Your task to perform on an android device: turn off wifi Image 0: 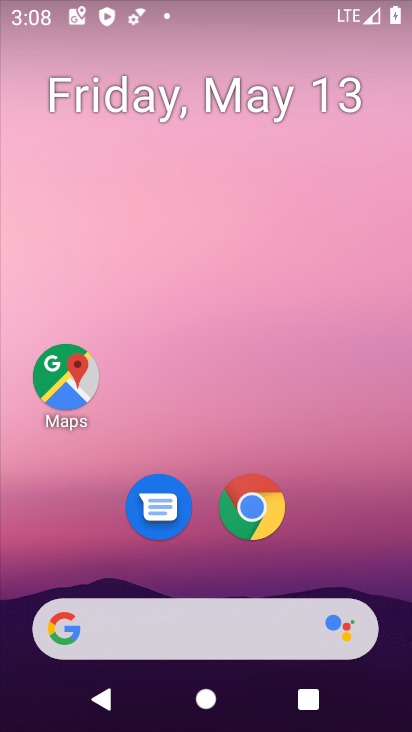
Step 0: drag from (369, 300) to (398, 6)
Your task to perform on an android device: turn off wifi Image 1: 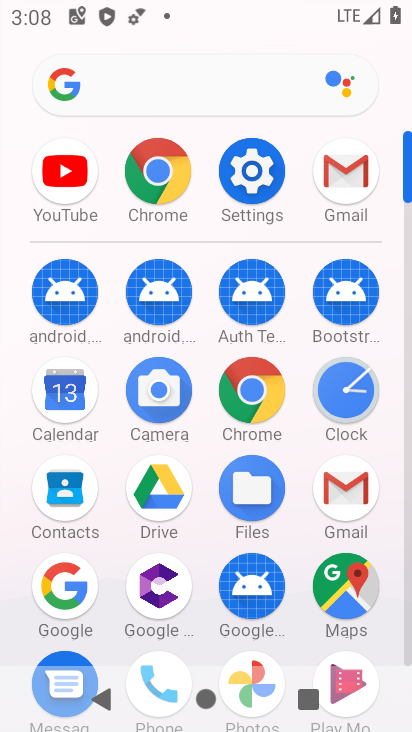
Step 1: click (255, 176)
Your task to perform on an android device: turn off wifi Image 2: 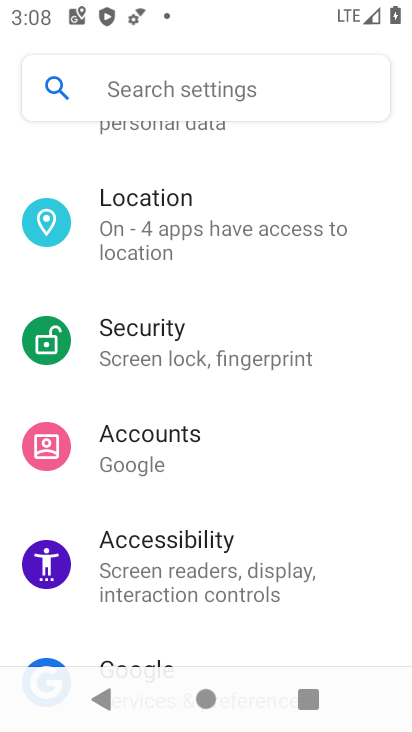
Step 2: drag from (216, 229) to (183, 448)
Your task to perform on an android device: turn off wifi Image 3: 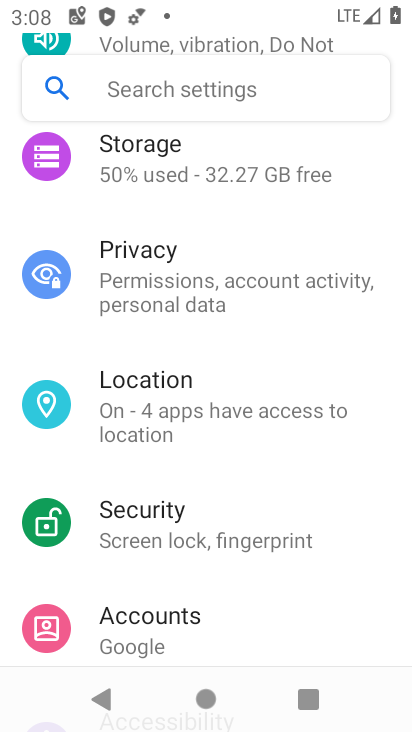
Step 3: drag from (187, 233) to (162, 486)
Your task to perform on an android device: turn off wifi Image 4: 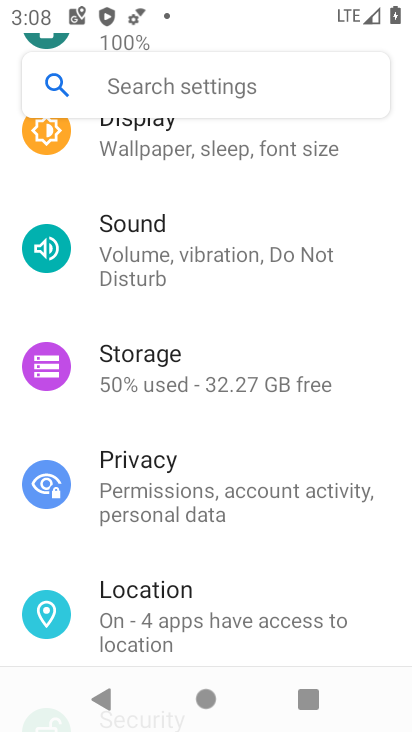
Step 4: drag from (226, 204) to (184, 440)
Your task to perform on an android device: turn off wifi Image 5: 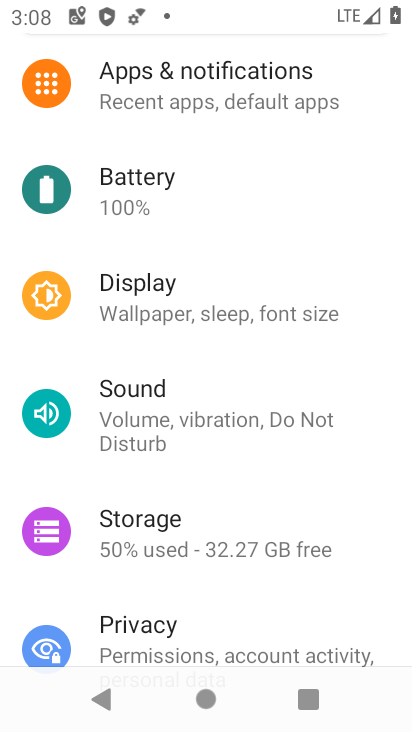
Step 5: drag from (227, 144) to (159, 456)
Your task to perform on an android device: turn off wifi Image 6: 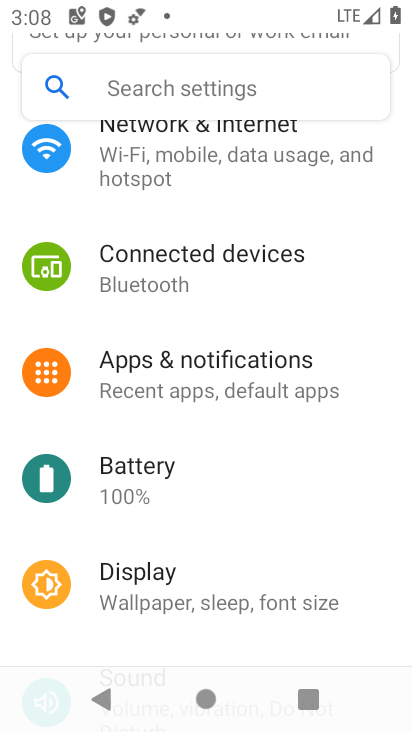
Step 6: click (240, 154)
Your task to perform on an android device: turn off wifi Image 7: 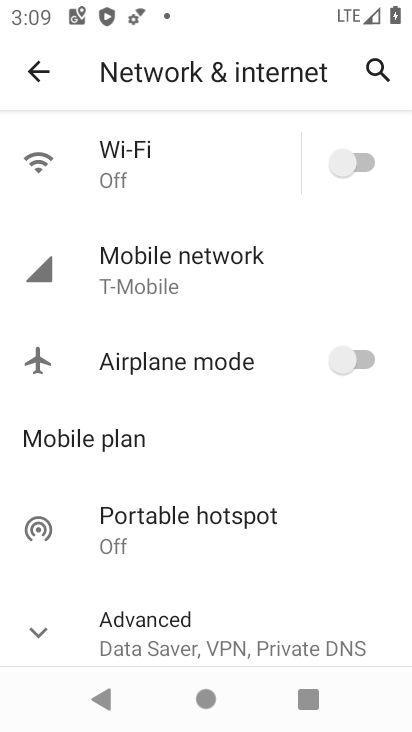
Step 7: task complete